Your task to perform on an android device: turn vacation reply on in the gmail app Image 0: 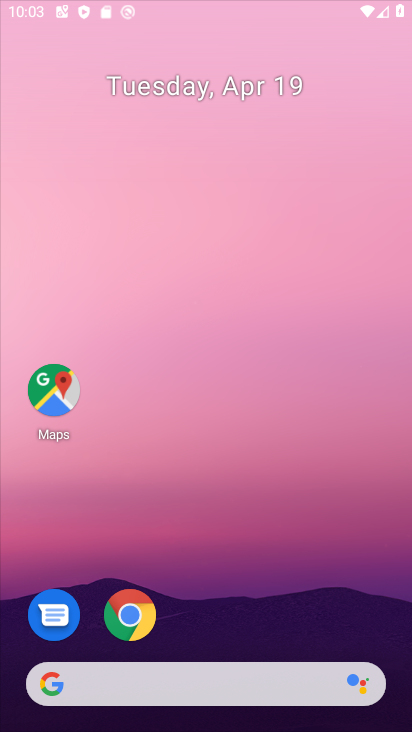
Step 0: click (294, 194)
Your task to perform on an android device: turn vacation reply on in the gmail app Image 1: 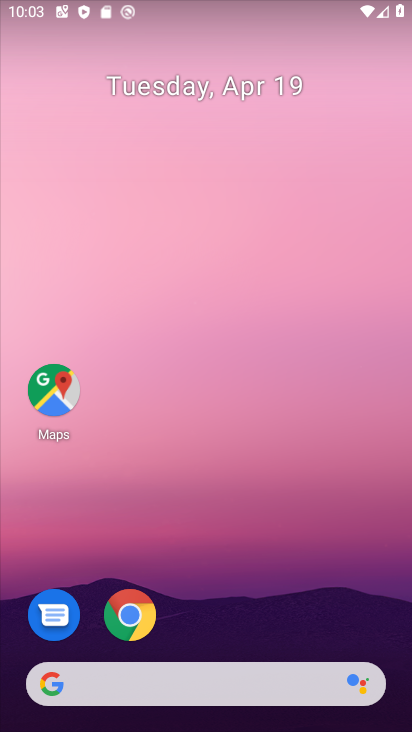
Step 1: drag from (227, 572) to (205, 300)
Your task to perform on an android device: turn vacation reply on in the gmail app Image 2: 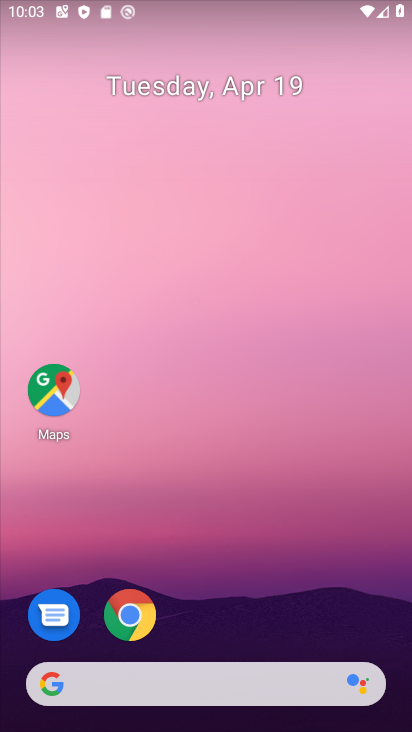
Step 2: drag from (188, 592) to (254, 231)
Your task to perform on an android device: turn vacation reply on in the gmail app Image 3: 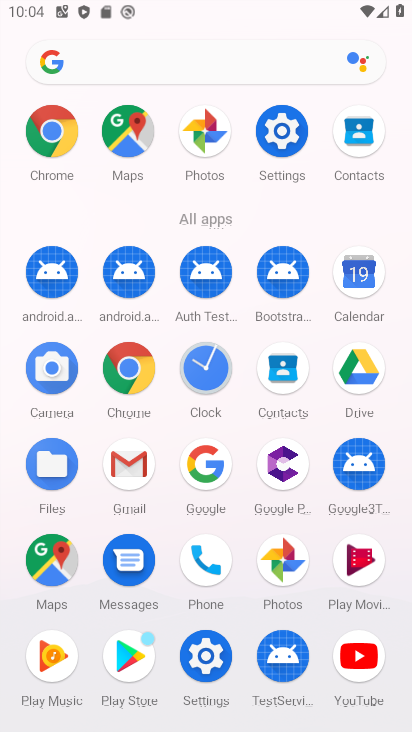
Step 3: click (136, 459)
Your task to perform on an android device: turn vacation reply on in the gmail app Image 4: 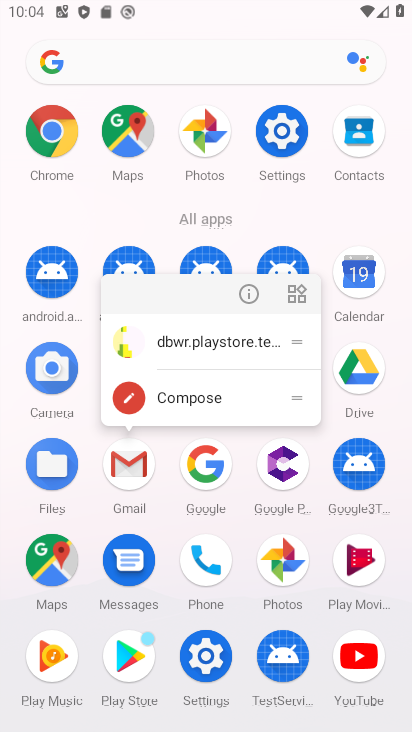
Step 4: click (247, 288)
Your task to perform on an android device: turn vacation reply on in the gmail app Image 5: 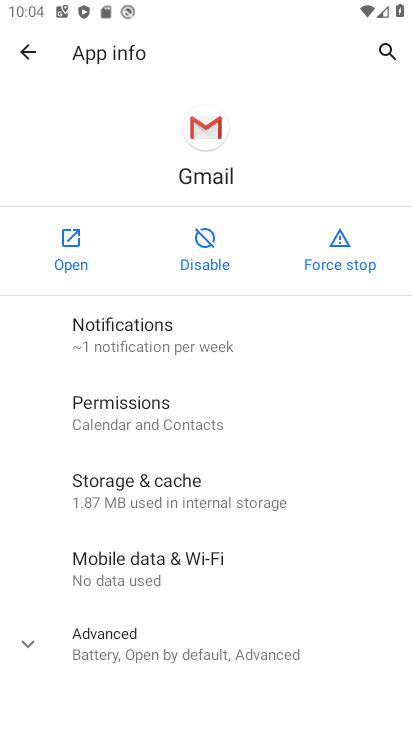
Step 5: click (63, 221)
Your task to perform on an android device: turn vacation reply on in the gmail app Image 6: 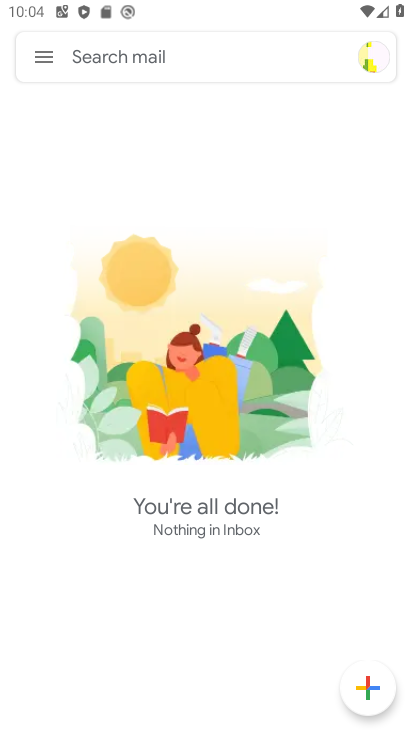
Step 6: drag from (227, 619) to (238, 392)
Your task to perform on an android device: turn vacation reply on in the gmail app Image 7: 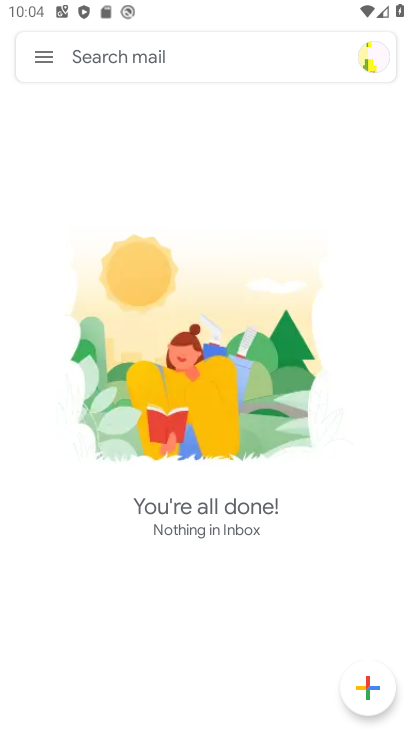
Step 7: click (45, 69)
Your task to perform on an android device: turn vacation reply on in the gmail app Image 8: 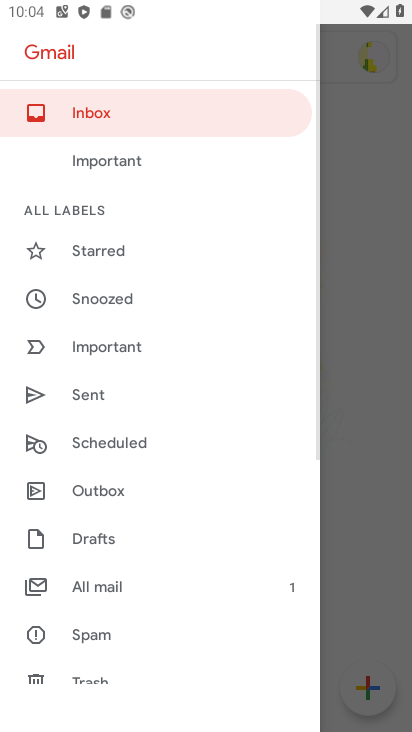
Step 8: drag from (140, 621) to (215, 56)
Your task to perform on an android device: turn vacation reply on in the gmail app Image 9: 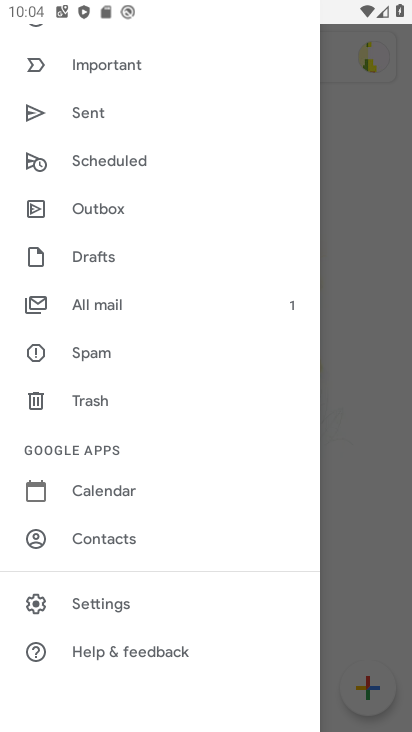
Step 9: drag from (170, 561) to (220, 281)
Your task to perform on an android device: turn vacation reply on in the gmail app Image 10: 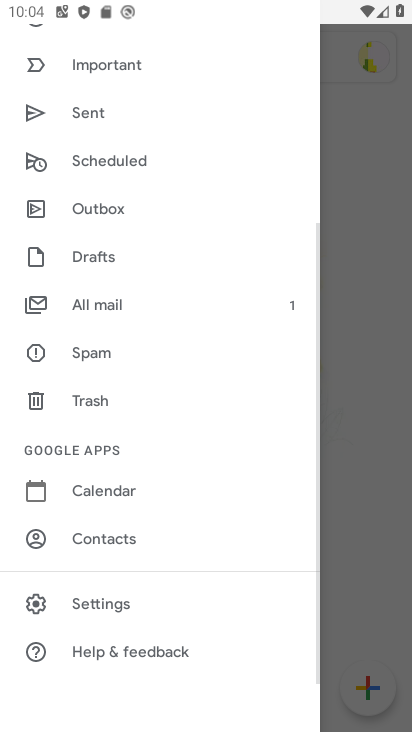
Step 10: click (114, 573)
Your task to perform on an android device: turn vacation reply on in the gmail app Image 11: 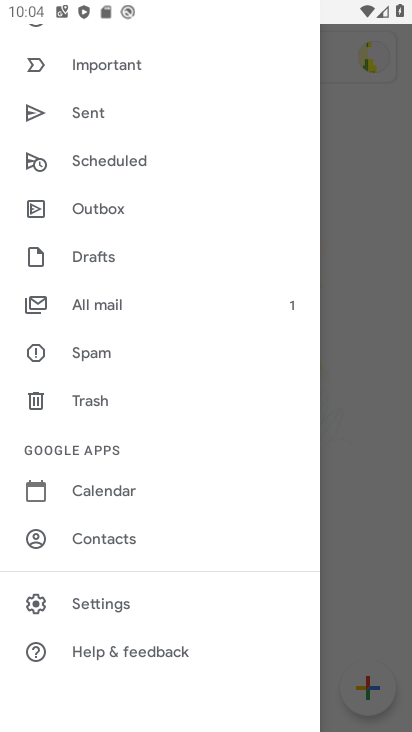
Step 11: click (148, 597)
Your task to perform on an android device: turn vacation reply on in the gmail app Image 12: 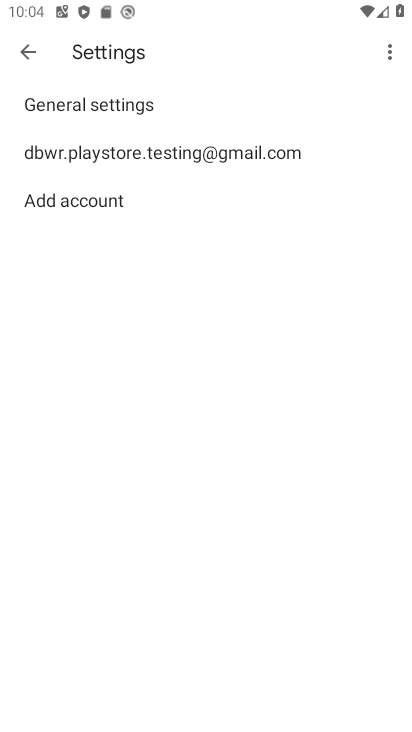
Step 12: click (255, 176)
Your task to perform on an android device: turn vacation reply on in the gmail app Image 13: 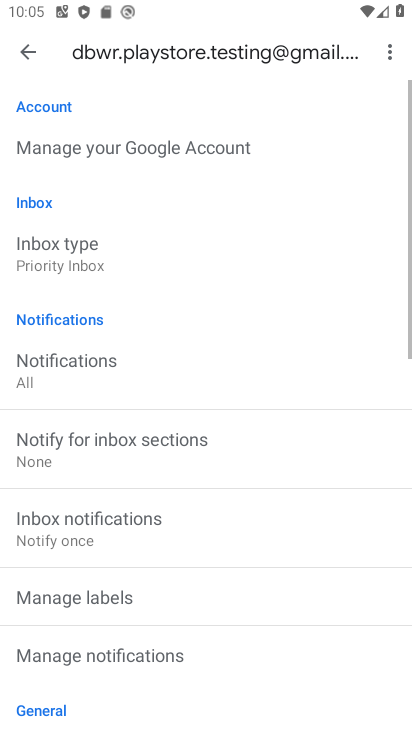
Step 13: drag from (222, 502) to (272, 187)
Your task to perform on an android device: turn vacation reply on in the gmail app Image 14: 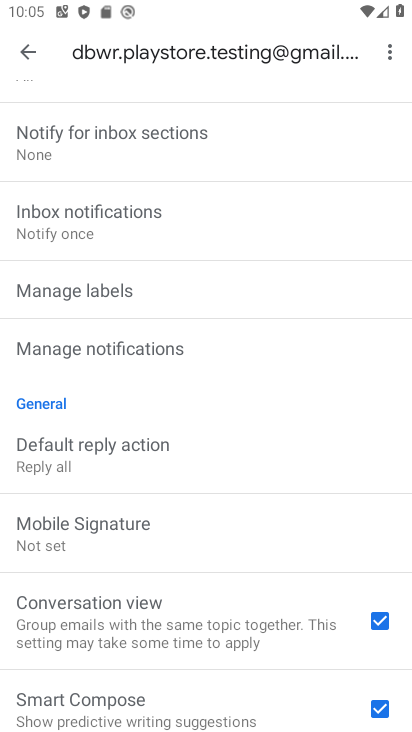
Step 14: drag from (248, 506) to (283, 244)
Your task to perform on an android device: turn vacation reply on in the gmail app Image 15: 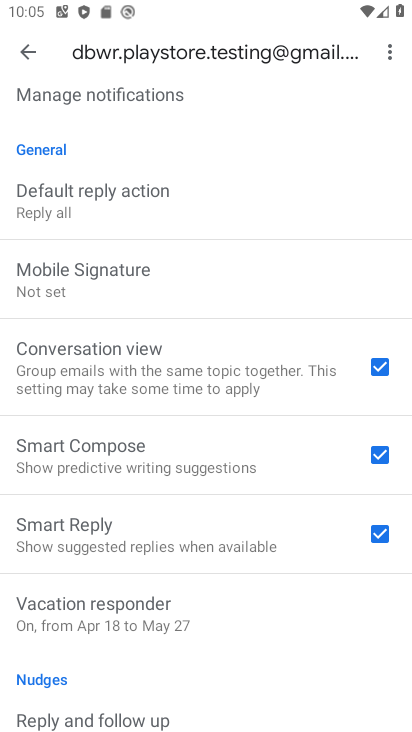
Step 15: drag from (201, 619) to (253, 308)
Your task to perform on an android device: turn vacation reply on in the gmail app Image 16: 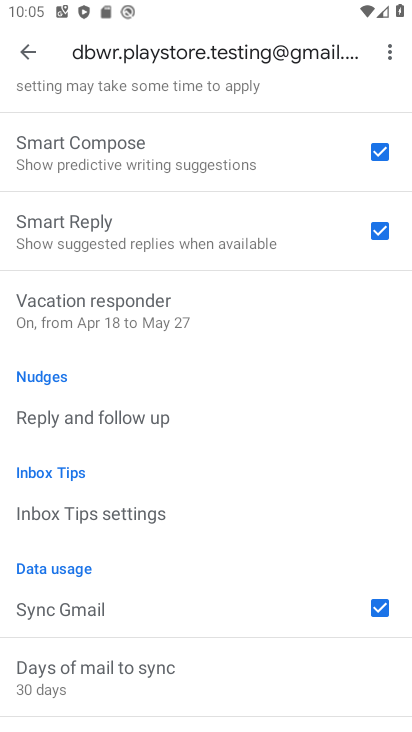
Step 16: drag from (224, 262) to (242, 379)
Your task to perform on an android device: turn vacation reply on in the gmail app Image 17: 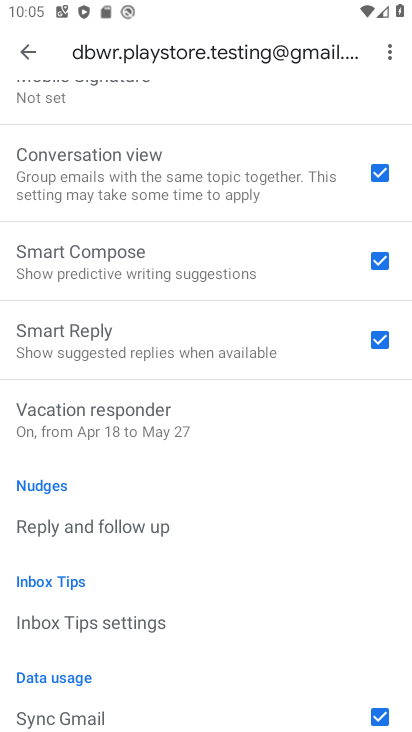
Step 17: drag from (197, 165) to (323, 726)
Your task to perform on an android device: turn vacation reply on in the gmail app Image 18: 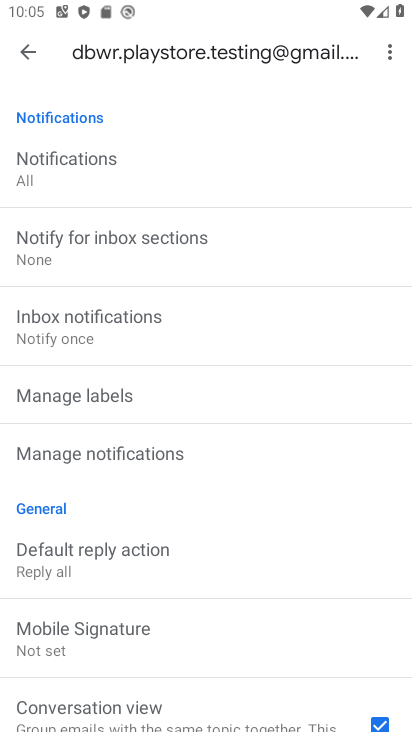
Step 18: drag from (217, 302) to (302, 657)
Your task to perform on an android device: turn vacation reply on in the gmail app Image 19: 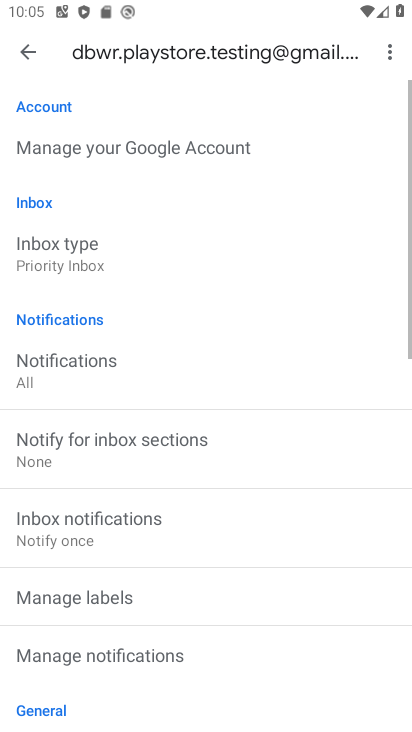
Step 19: drag from (264, 624) to (290, 163)
Your task to perform on an android device: turn vacation reply on in the gmail app Image 20: 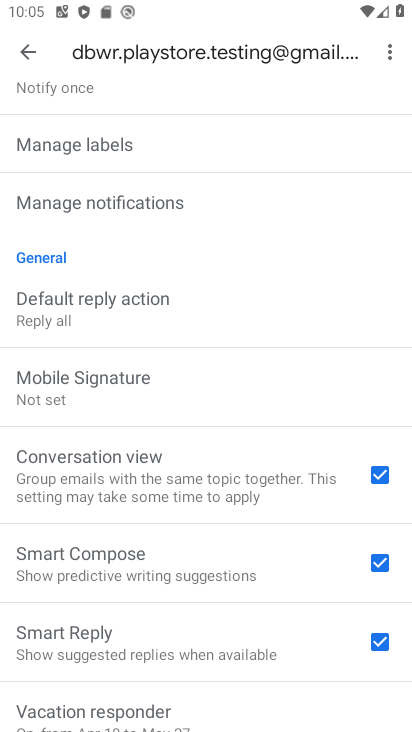
Step 20: drag from (139, 637) to (268, 253)
Your task to perform on an android device: turn vacation reply on in the gmail app Image 21: 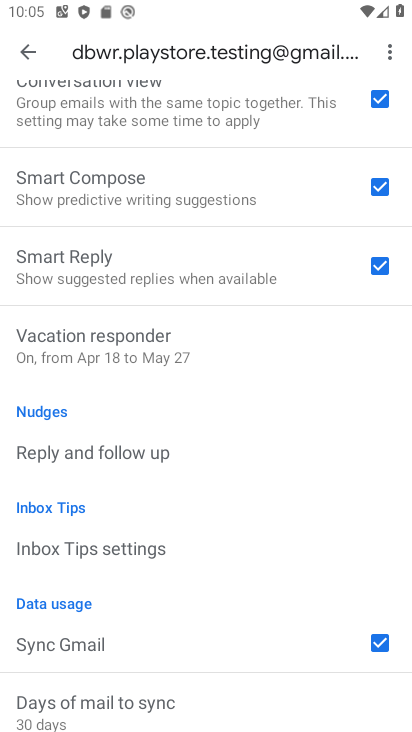
Step 21: drag from (284, 140) to (308, 351)
Your task to perform on an android device: turn vacation reply on in the gmail app Image 22: 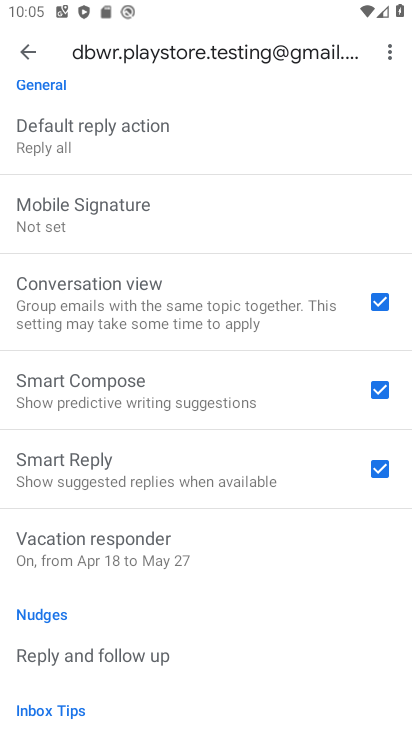
Step 22: drag from (339, 528) to (378, 103)
Your task to perform on an android device: turn vacation reply on in the gmail app Image 23: 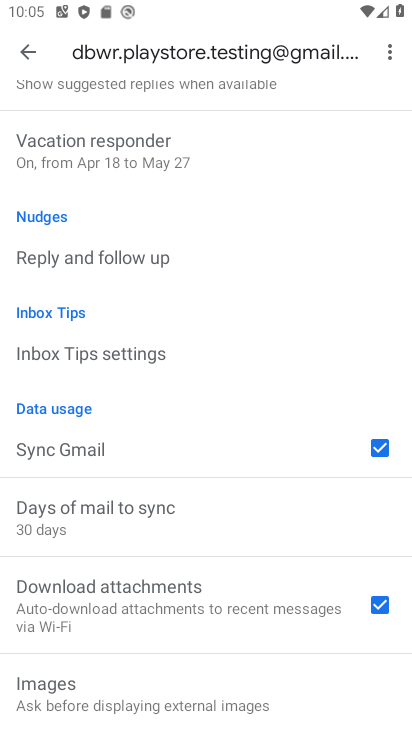
Step 23: drag from (245, 536) to (264, 447)
Your task to perform on an android device: turn vacation reply on in the gmail app Image 24: 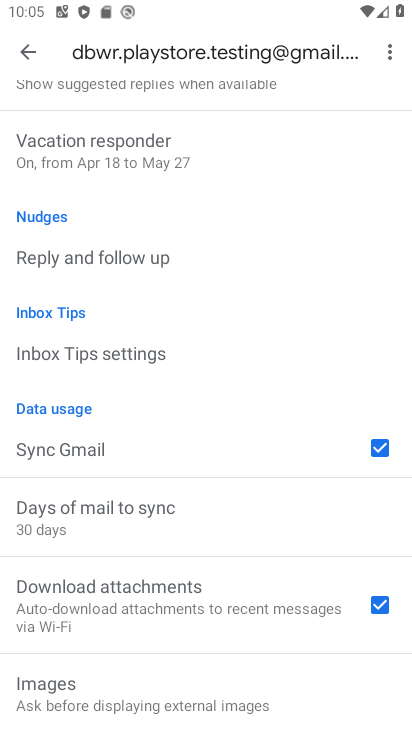
Step 24: drag from (190, 530) to (257, 267)
Your task to perform on an android device: turn vacation reply on in the gmail app Image 25: 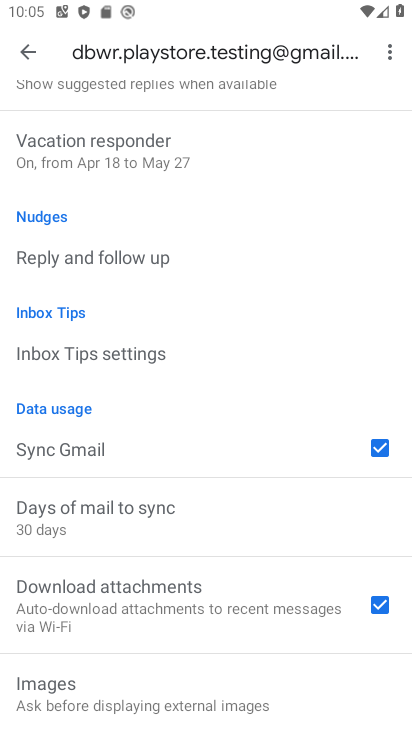
Step 25: click (168, 145)
Your task to perform on an android device: turn vacation reply on in the gmail app Image 26: 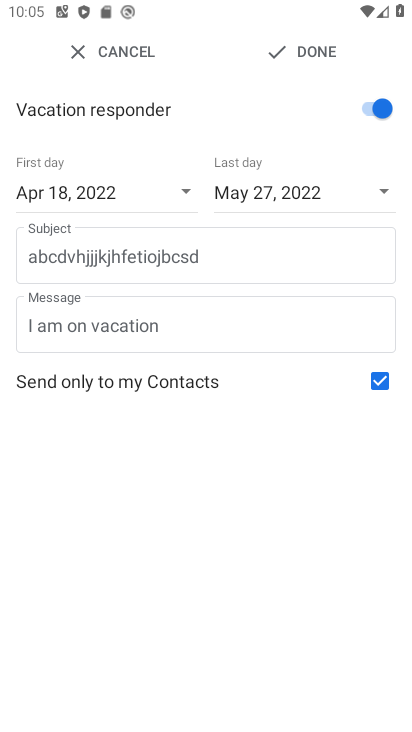
Step 26: drag from (156, 521) to (248, 360)
Your task to perform on an android device: turn vacation reply on in the gmail app Image 27: 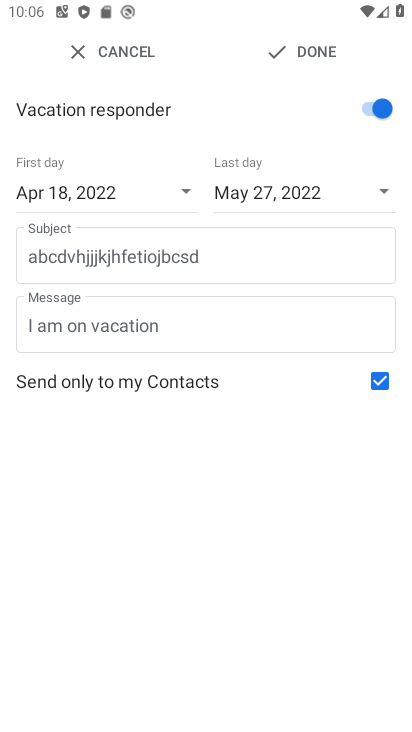
Step 27: drag from (278, 210) to (302, 333)
Your task to perform on an android device: turn vacation reply on in the gmail app Image 28: 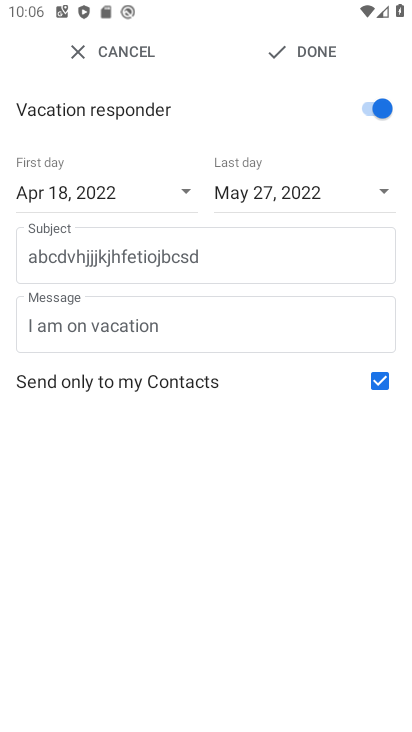
Step 28: drag from (222, 468) to (217, 322)
Your task to perform on an android device: turn vacation reply on in the gmail app Image 29: 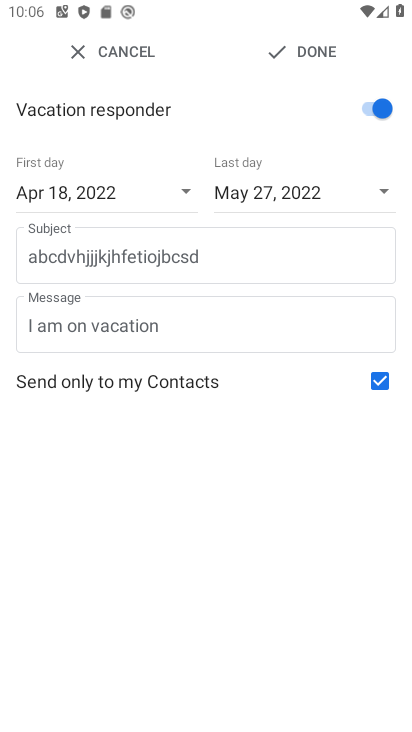
Step 29: click (311, 61)
Your task to perform on an android device: turn vacation reply on in the gmail app Image 30: 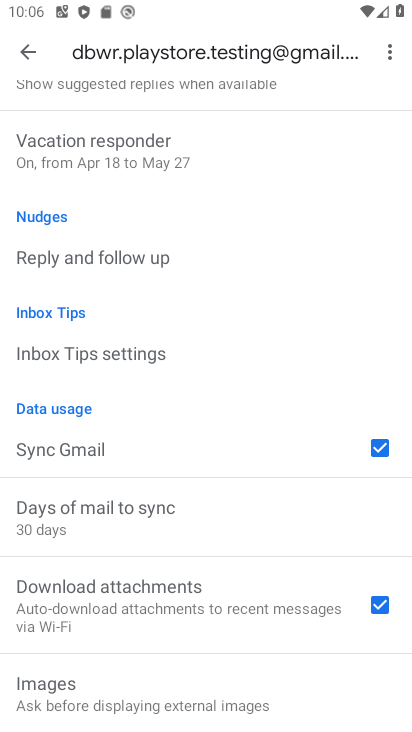
Step 30: drag from (315, 334) to (351, 188)
Your task to perform on an android device: turn vacation reply on in the gmail app Image 31: 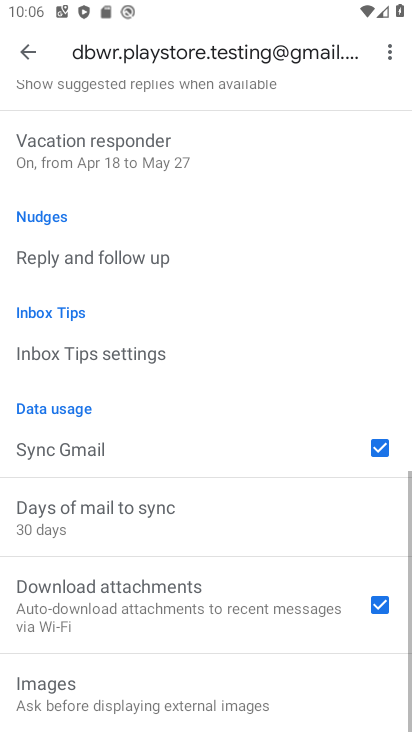
Step 31: drag from (268, 608) to (394, 331)
Your task to perform on an android device: turn vacation reply on in the gmail app Image 32: 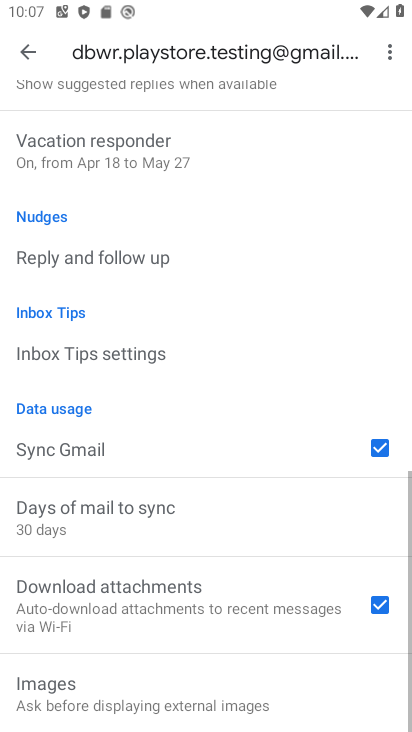
Step 32: click (115, 144)
Your task to perform on an android device: turn vacation reply on in the gmail app Image 33: 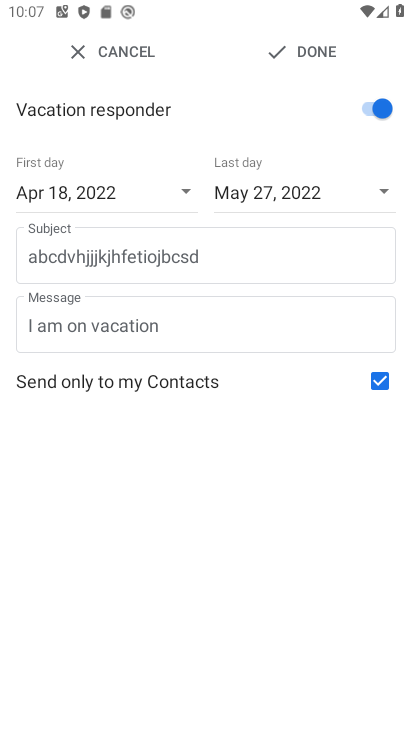
Step 33: task complete